Your task to perform on an android device: Go to wifi settings Image 0: 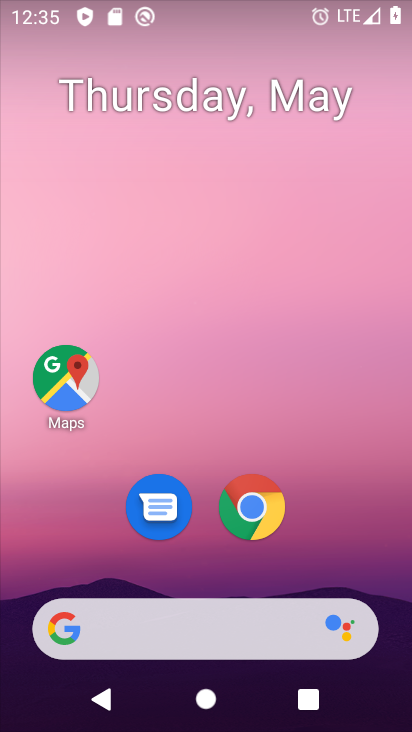
Step 0: drag from (210, 577) to (240, 167)
Your task to perform on an android device: Go to wifi settings Image 1: 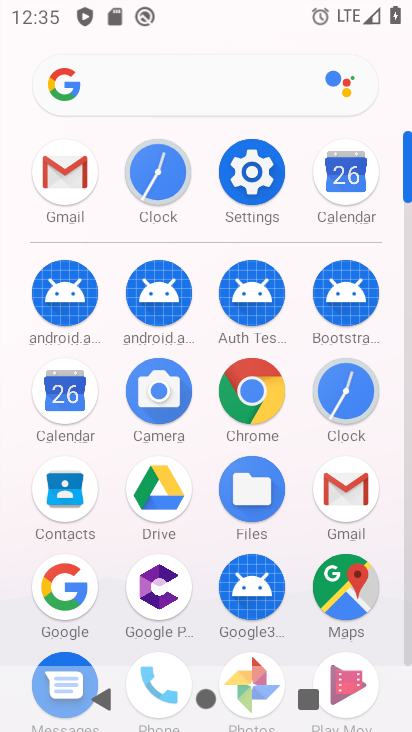
Step 1: click (240, 166)
Your task to perform on an android device: Go to wifi settings Image 2: 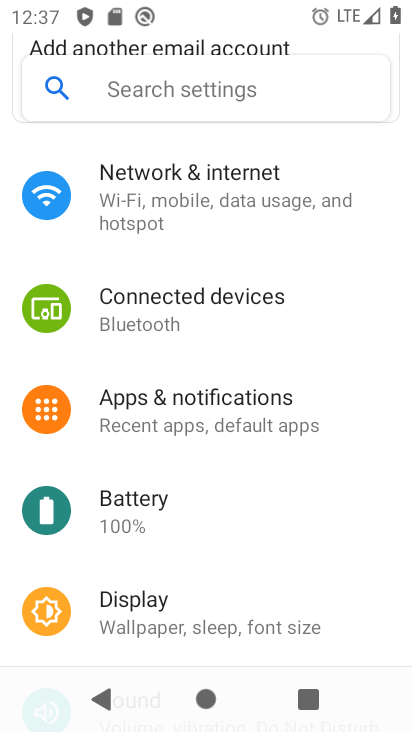
Step 2: click (227, 238)
Your task to perform on an android device: Go to wifi settings Image 3: 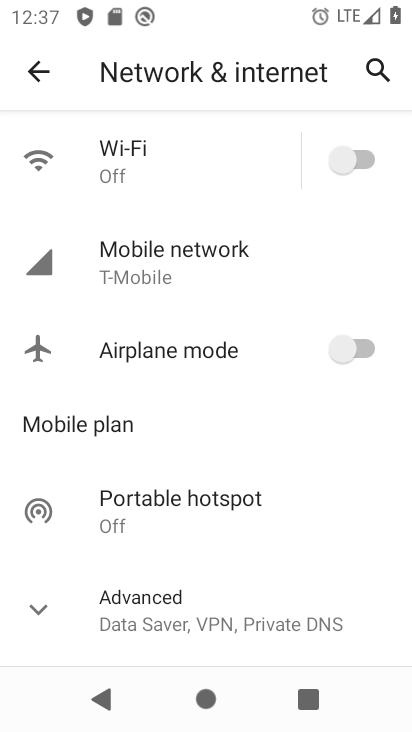
Step 3: click (173, 171)
Your task to perform on an android device: Go to wifi settings Image 4: 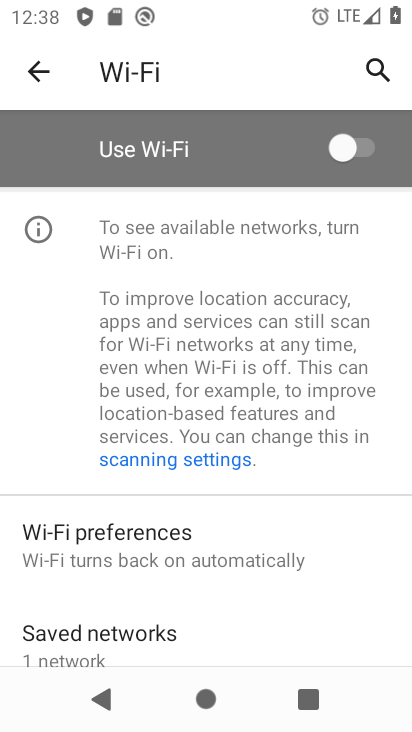
Step 4: task complete